Your task to perform on an android device: change the clock display to analog Image 0: 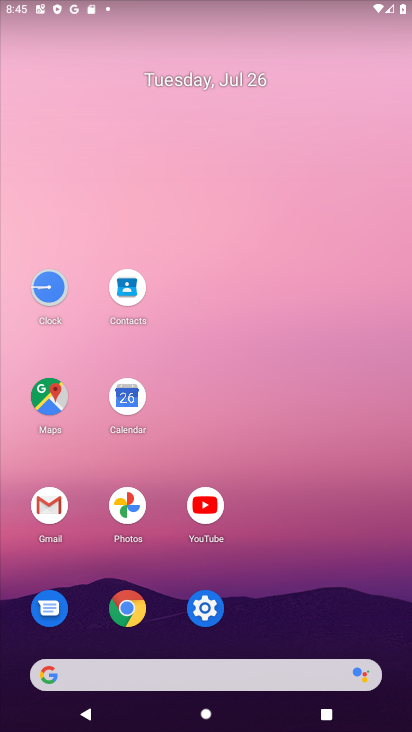
Step 0: click (49, 290)
Your task to perform on an android device: change the clock display to analog Image 1: 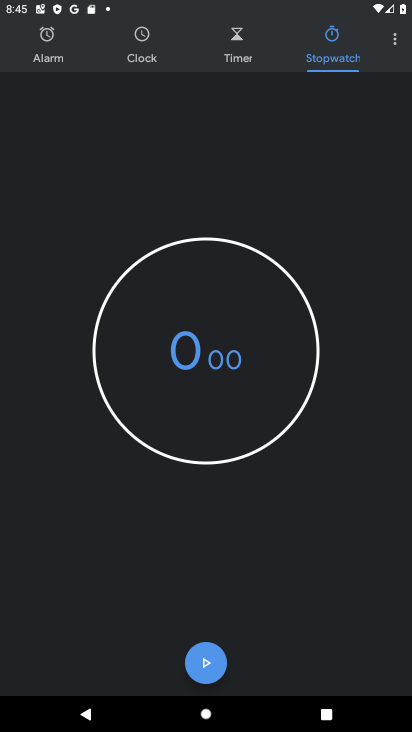
Step 1: click (393, 40)
Your task to perform on an android device: change the clock display to analog Image 2: 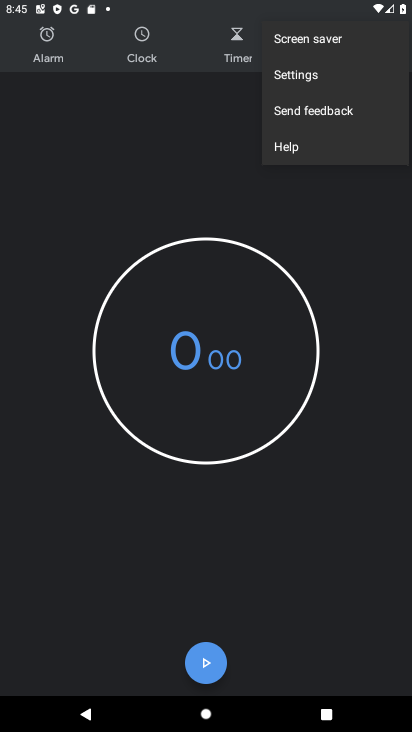
Step 2: click (313, 71)
Your task to perform on an android device: change the clock display to analog Image 3: 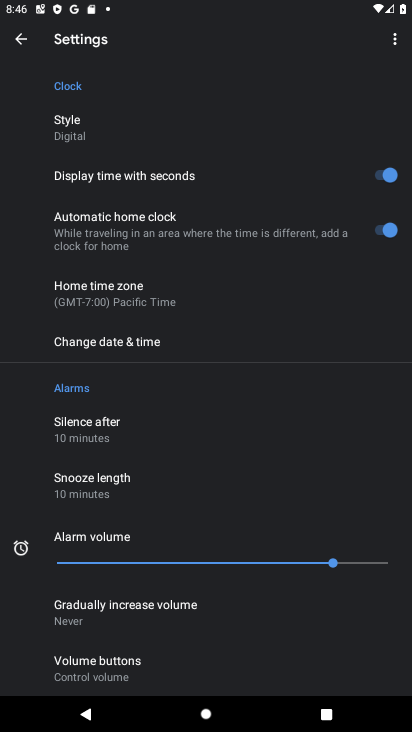
Step 3: click (74, 123)
Your task to perform on an android device: change the clock display to analog Image 4: 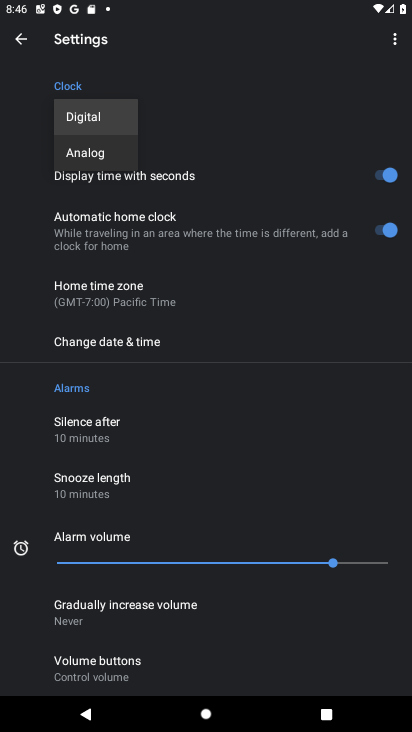
Step 4: click (82, 150)
Your task to perform on an android device: change the clock display to analog Image 5: 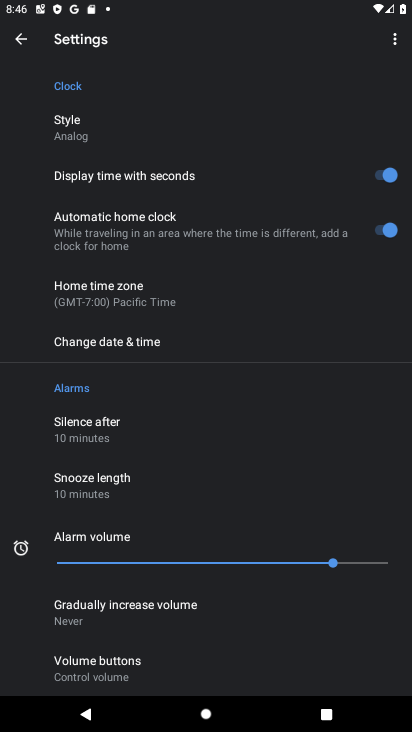
Step 5: task complete